Your task to perform on an android device: find which apps use the phone's location Image 0: 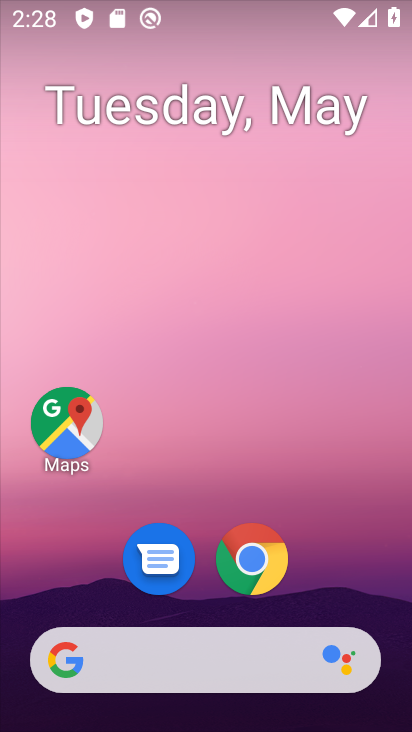
Step 0: drag from (213, 595) to (219, 207)
Your task to perform on an android device: find which apps use the phone's location Image 1: 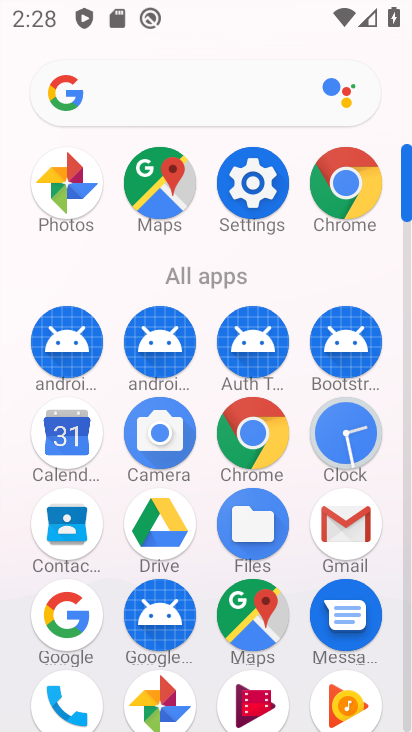
Step 1: click (252, 192)
Your task to perform on an android device: find which apps use the phone's location Image 2: 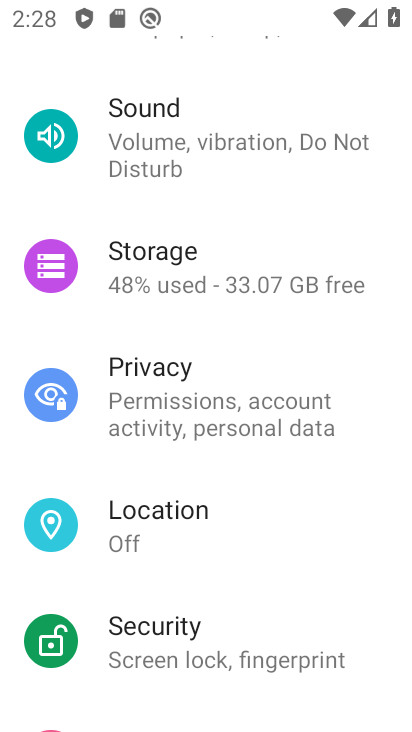
Step 2: click (195, 526)
Your task to perform on an android device: find which apps use the phone's location Image 3: 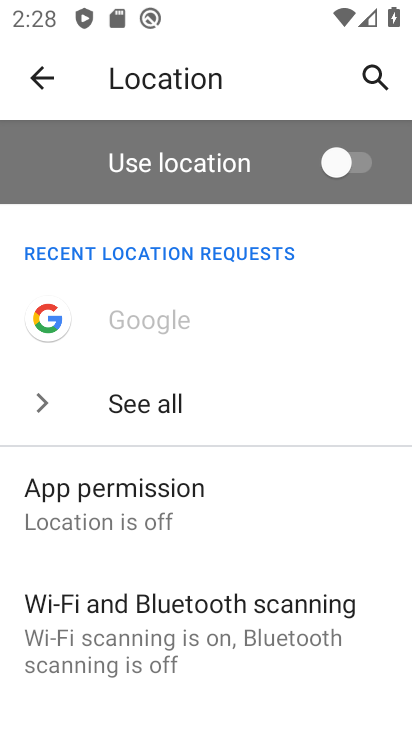
Step 3: drag from (190, 618) to (171, 330)
Your task to perform on an android device: find which apps use the phone's location Image 4: 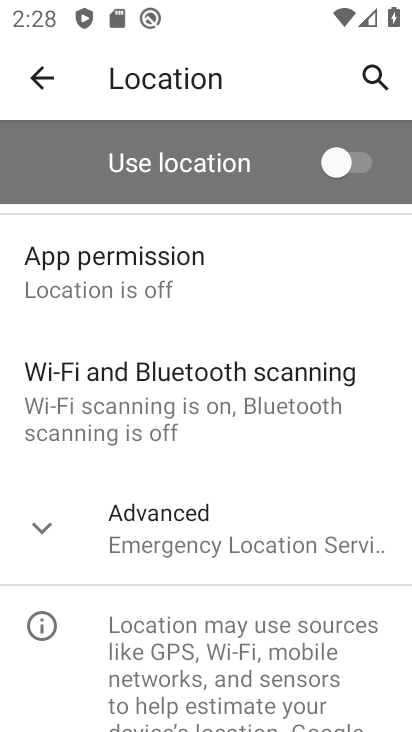
Step 4: click (106, 259)
Your task to perform on an android device: find which apps use the phone's location Image 5: 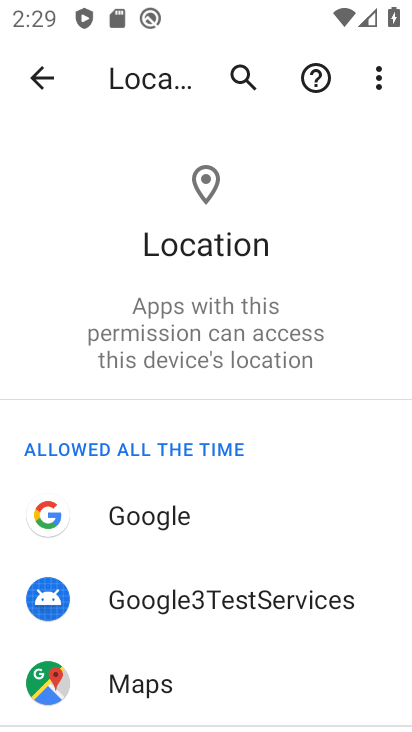
Step 5: task complete